Your task to perform on an android device: Open privacy settings Image 0: 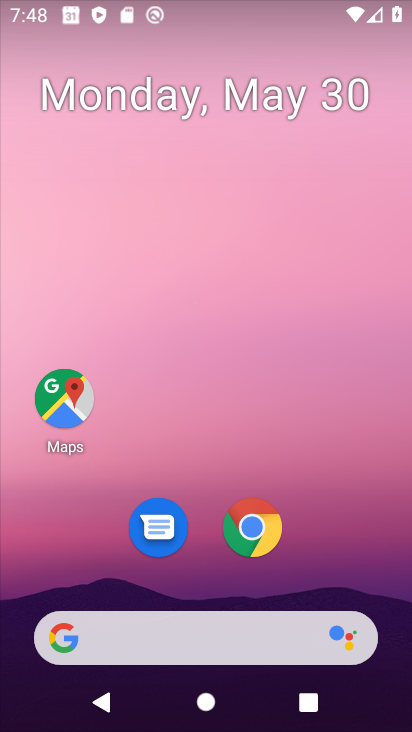
Step 0: drag from (212, 591) to (244, 52)
Your task to perform on an android device: Open privacy settings Image 1: 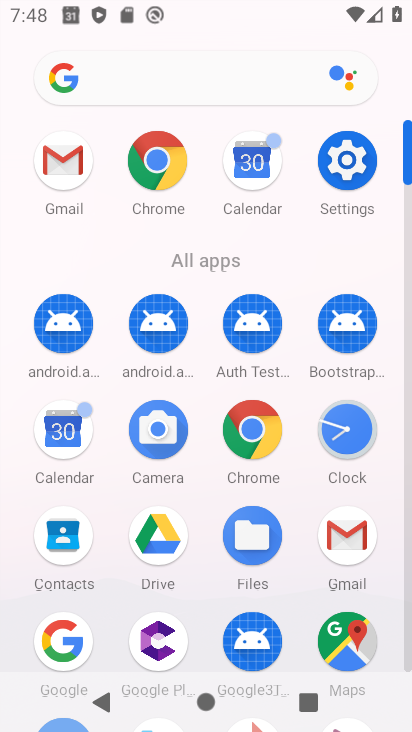
Step 1: click (343, 171)
Your task to perform on an android device: Open privacy settings Image 2: 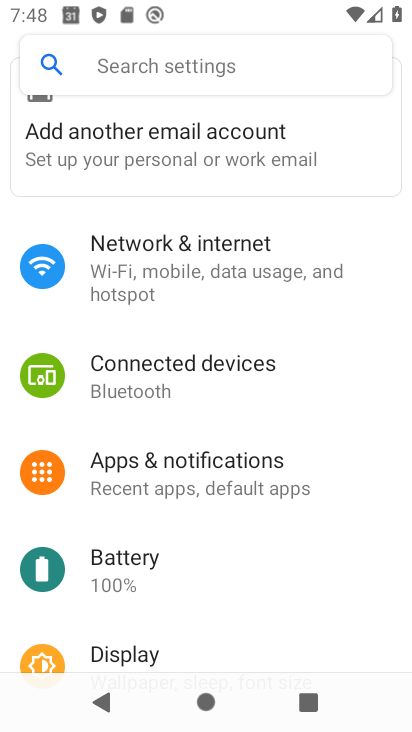
Step 2: drag from (164, 563) to (119, 216)
Your task to perform on an android device: Open privacy settings Image 3: 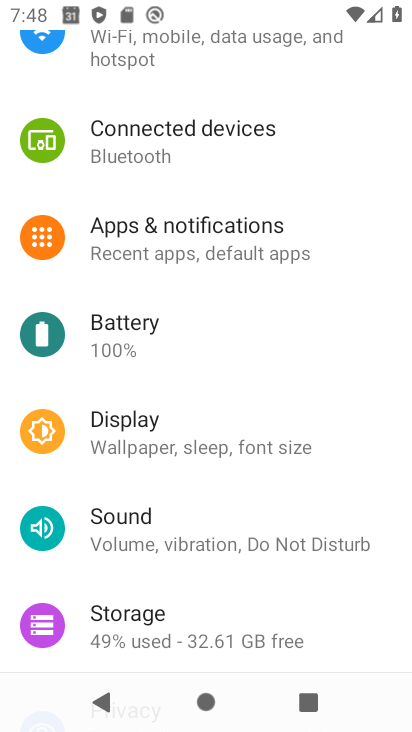
Step 3: drag from (157, 497) to (127, 270)
Your task to perform on an android device: Open privacy settings Image 4: 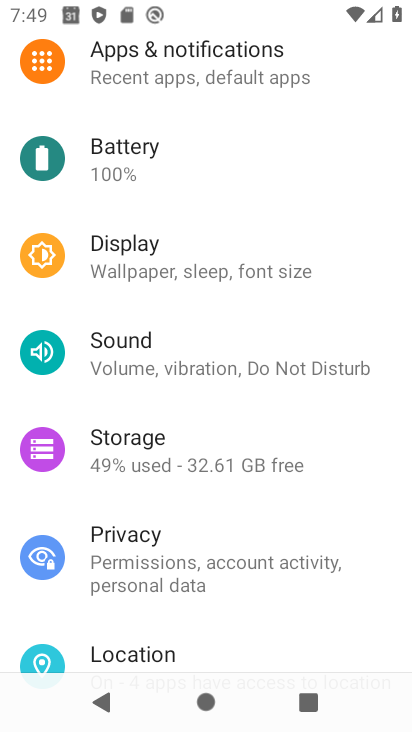
Step 4: click (164, 576)
Your task to perform on an android device: Open privacy settings Image 5: 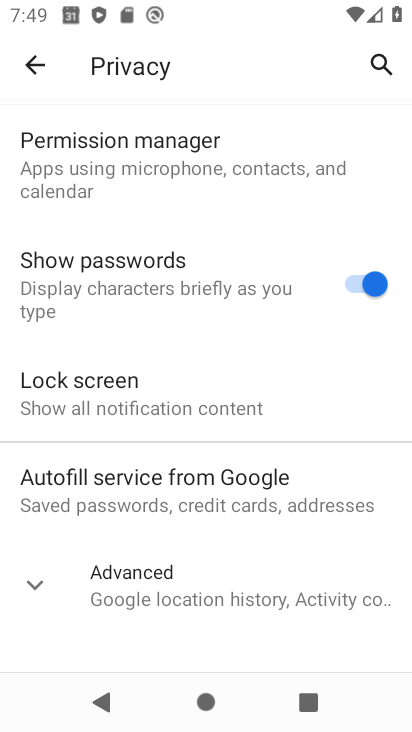
Step 5: task complete